Your task to perform on an android device: Empty the shopping cart on bestbuy. Search for "corsair k70" on bestbuy, select the first entry, and add it to the cart. Image 0: 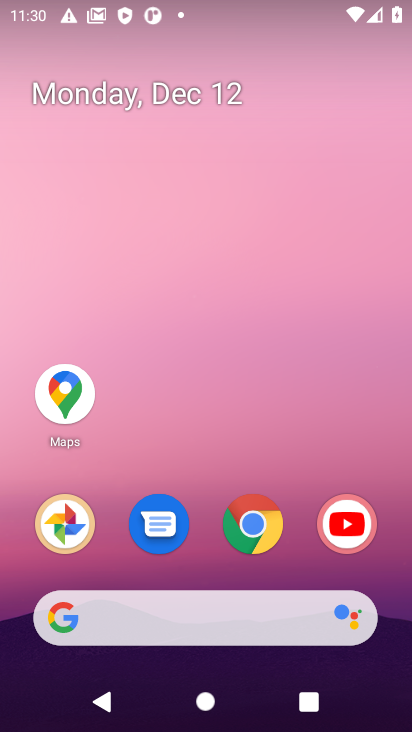
Step 0: click (258, 524)
Your task to perform on an android device: Empty the shopping cart on bestbuy. Search for "corsair k70" on bestbuy, select the first entry, and add it to the cart. Image 1: 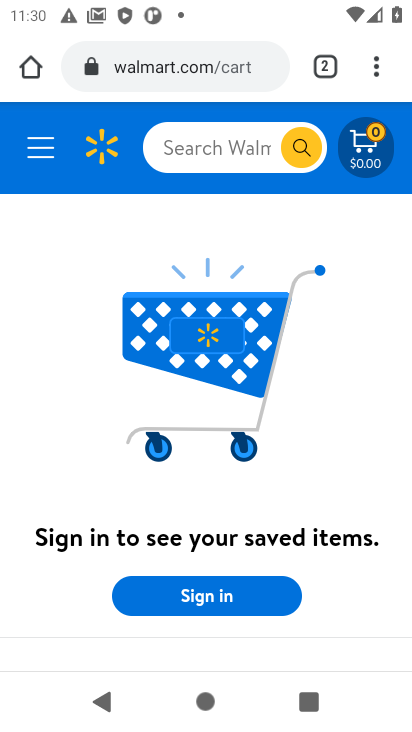
Step 1: click (149, 72)
Your task to perform on an android device: Empty the shopping cart on bestbuy. Search for "corsair k70" on bestbuy, select the first entry, and add it to the cart. Image 2: 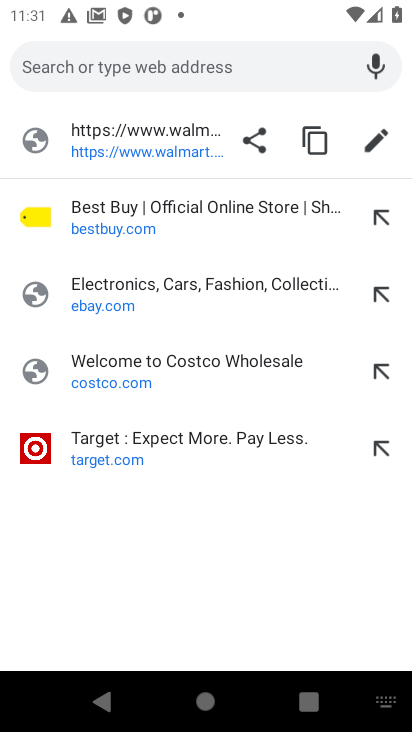
Step 2: click (91, 215)
Your task to perform on an android device: Empty the shopping cart on bestbuy. Search for "corsair k70" on bestbuy, select the first entry, and add it to the cart. Image 3: 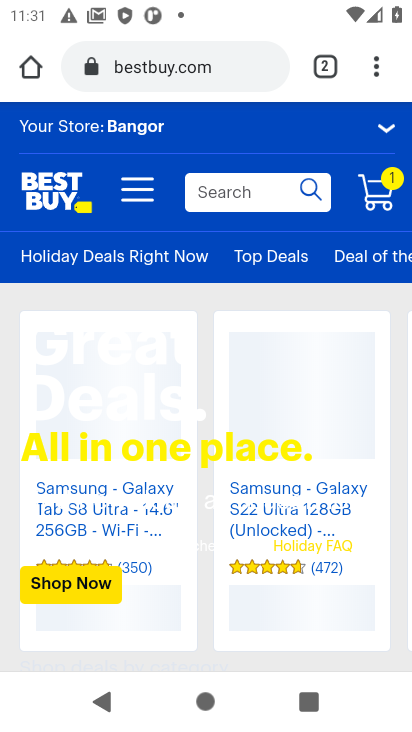
Step 3: click (368, 186)
Your task to perform on an android device: Empty the shopping cart on bestbuy. Search for "corsair k70" on bestbuy, select the first entry, and add it to the cart. Image 4: 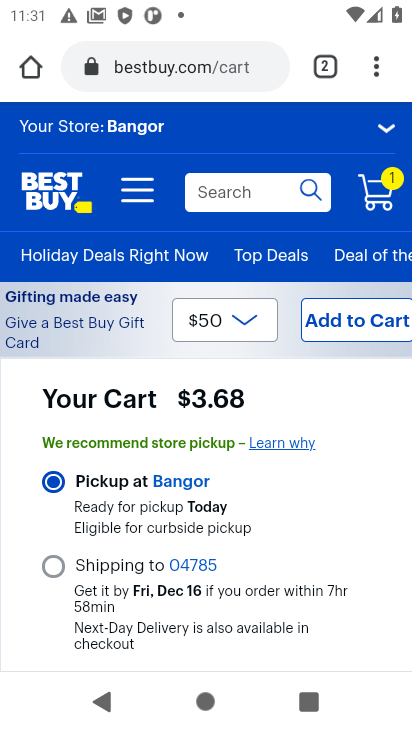
Step 4: drag from (259, 544) to (258, 271)
Your task to perform on an android device: Empty the shopping cart on bestbuy. Search for "corsair k70" on bestbuy, select the first entry, and add it to the cart. Image 5: 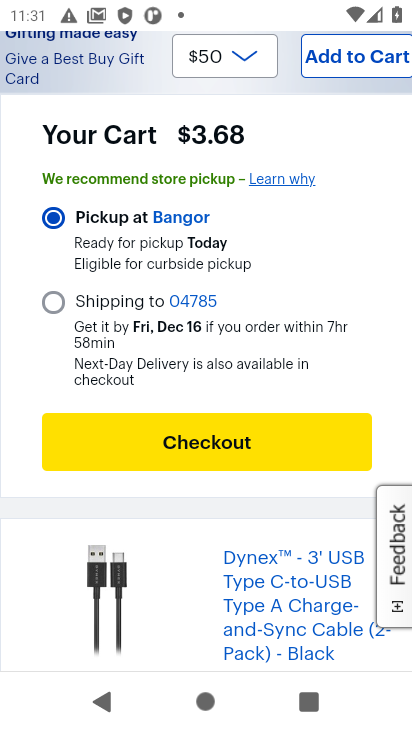
Step 5: drag from (247, 534) to (249, 286)
Your task to perform on an android device: Empty the shopping cart on bestbuy. Search for "corsair k70" on bestbuy, select the first entry, and add it to the cart. Image 6: 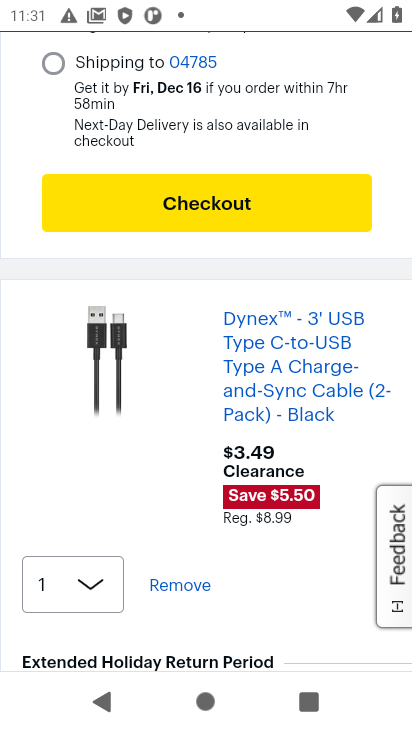
Step 6: click (188, 586)
Your task to perform on an android device: Empty the shopping cart on bestbuy. Search for "corsair k70" on bestbuy, select the first entry, and add it to the cart. Image 7: 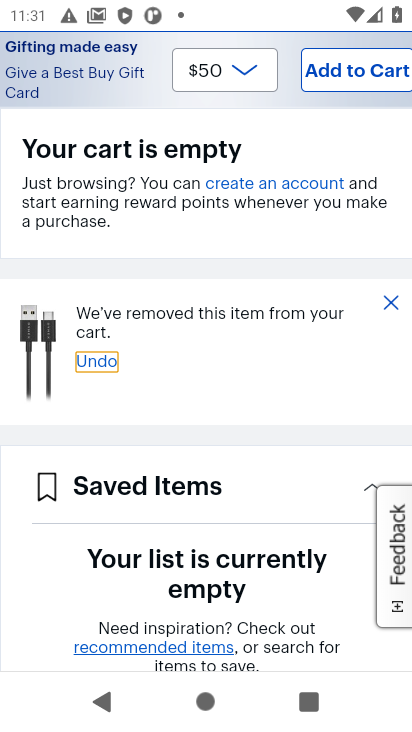
Step 7: drag from (263, 298) to (247, 542)
Your task to perform on an android device: Empty the shopping cart on bestbuy. Search for "corsair k70" on bestbuy, select the first entry, and add it to the cart. Image 8: 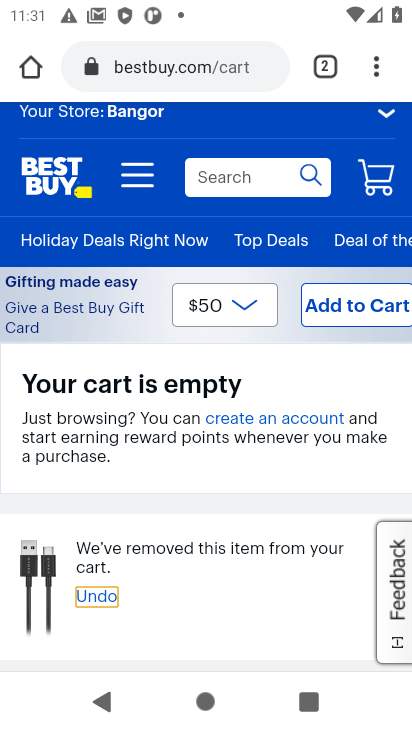
Step 8: click (214, 182)
Your task to perform on an android device: Empty the shopping cart on bestbuy. Search for "corsair k70" on bestbuy, select the first entry, and add it to the cart. Image 9: 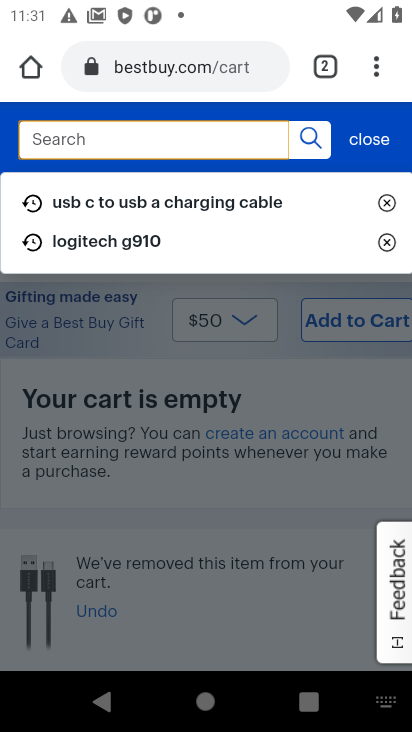
Step 9: type "corsair k70"
Your task to perform on an android device: Empty the shopping cart on bestbuy. Search for "corsair k70" on bestbuy, select the first entry, and add it to the cart. Image 10: 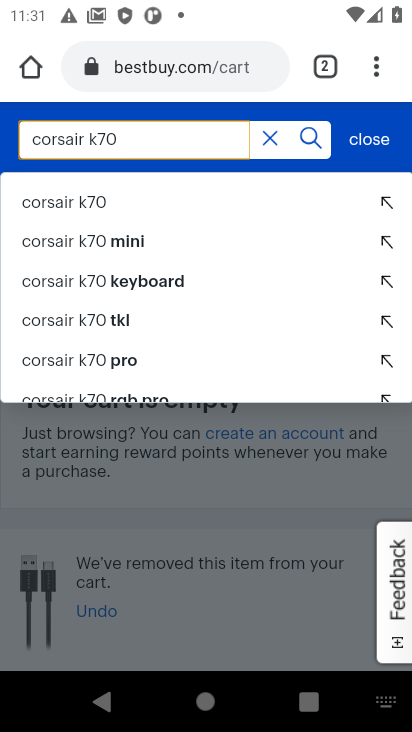
Step 10: click (77, 205)
Your task to perform on an android device: Empty the shopping cart on bestbuy. Search for "corsair k70" on bestbuy, select the first entry, and add it to the cart. Image 11: 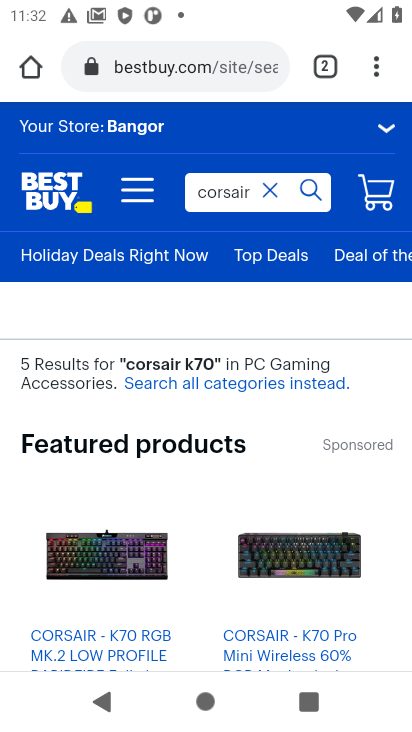
Step 11: drag from (215, 468) to (203, 204)
Your task to perform on an android device: Empty the shopping cart on bestbuy. Search for "corsair k70" on bestbuy, select the first entry, and add it to the cart. Image 12: 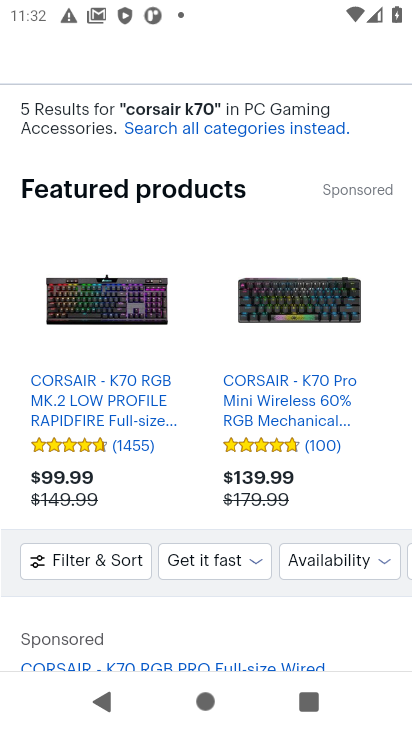
Step 12: drag from (169, 464) to (196, 193)
Your task to perform on an android device: Empty the shopping cart on bestbuy. Search for "corsair k70" on bestbuy, select the first entry, and add it to the cart. Image 13: 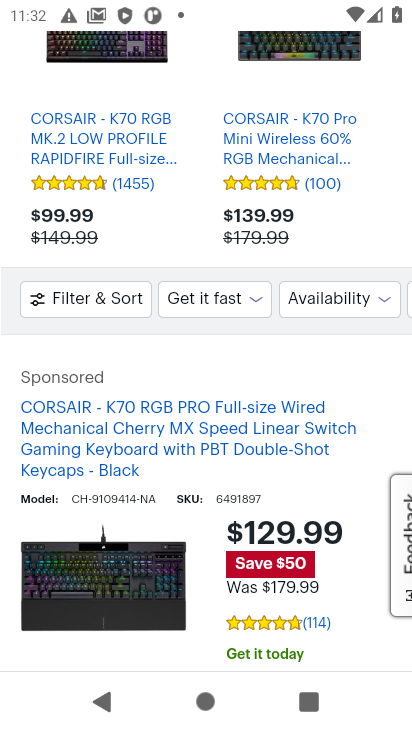
Step 13: drag from (177, 420) to (176, 251)
Your task to perform on an android device: Empty the shopping cart on bestbuy. Search for "corsair k70" on bestbuy, select the first entry, and add it to the cart. Image 14: 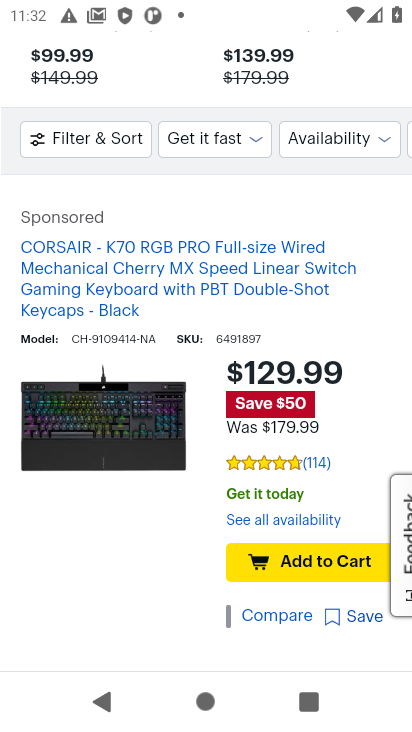
Step 14: click (267, 554)
Your task to perform on an android device: Empty the shopping cart on bestbuy. Search for "corsair k70" on bestbuy, select the first entry, and add it to the cart. Image 15: 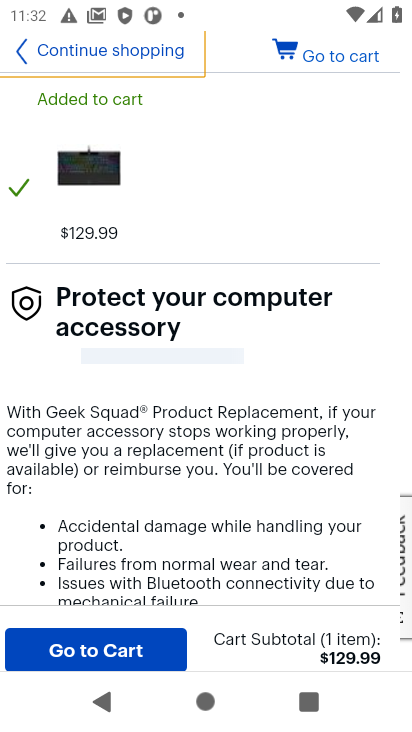
Step 15: task complete